Your task to perform on an android device: Go to privacy settings Image 0: 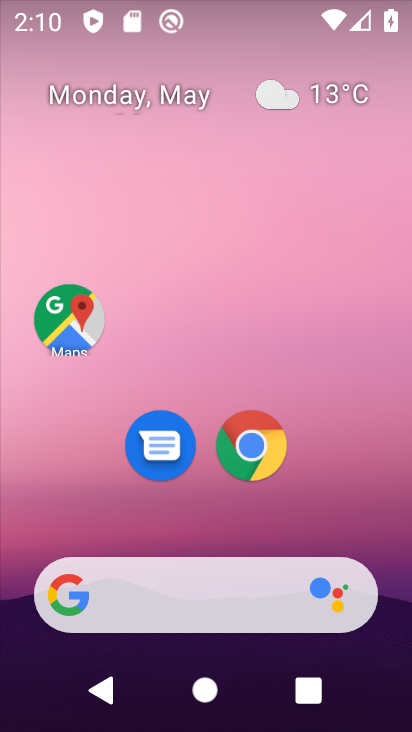
Step 0: drag from (396, 562) to (363, 138)
Your task to perform on an android device: Go to privacy settings Image 1: 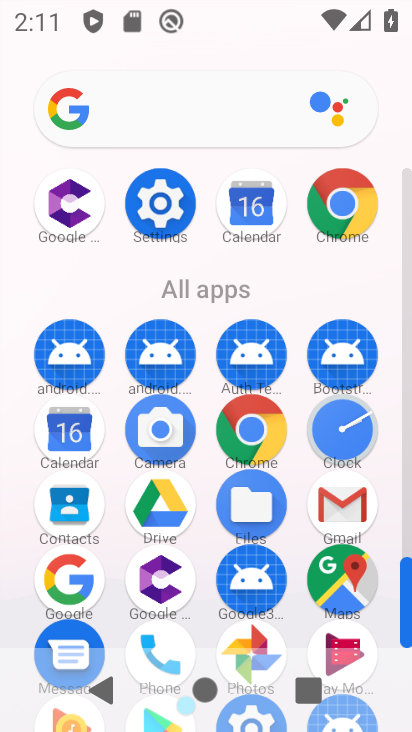
Step 1: drag from (289, 567) to (285, 214)
Your task to perform on an android device: Go to privacy settings Image 2: 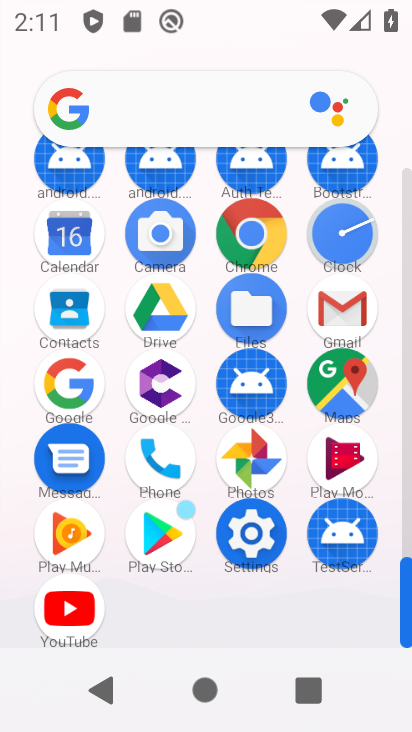
Step 2: click (256, 570)
Your task to perform on an android device: Go to privacy settings Image 3: 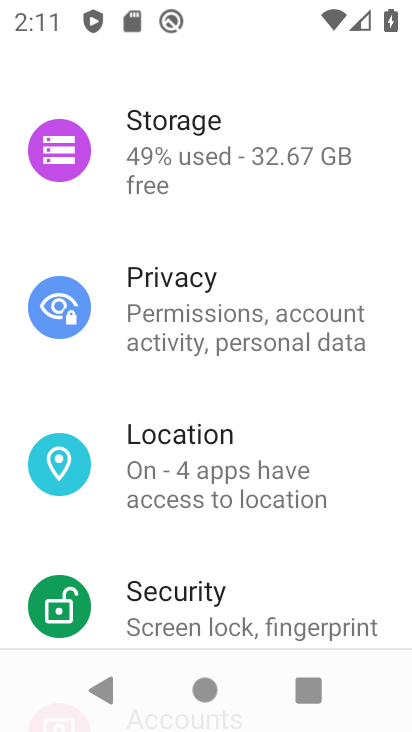
Step 3: click (153, 283)
Your task to perform on an android device: Go to privacy settings Image 4: 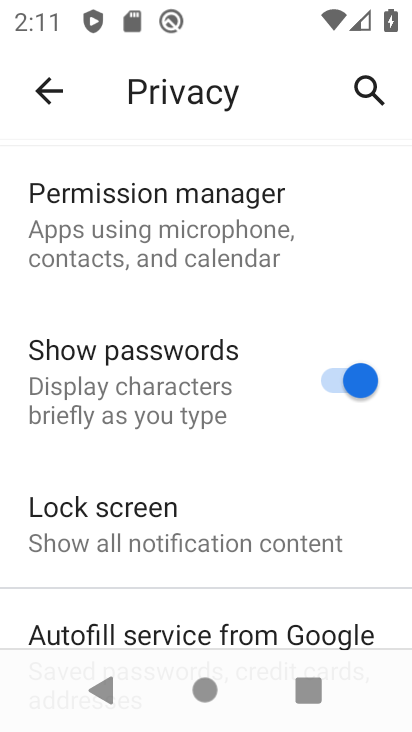
Step 4: task complete